Your task to perform on an android device: change your default location settings in chrome Image 0: 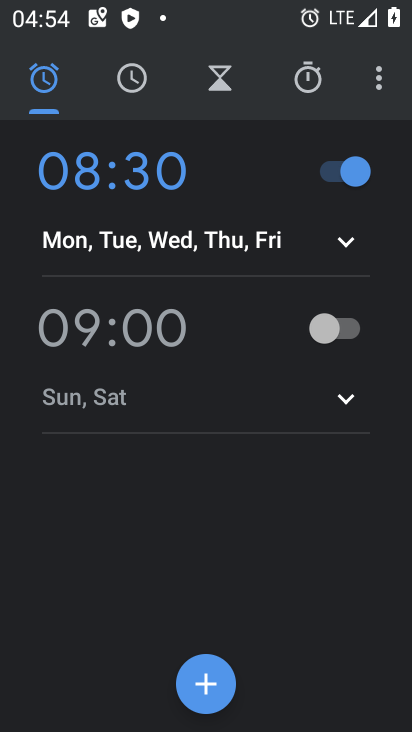
Step 0: press home button
Your task to perform on an android device: change your default location settings in chrome Image 1: 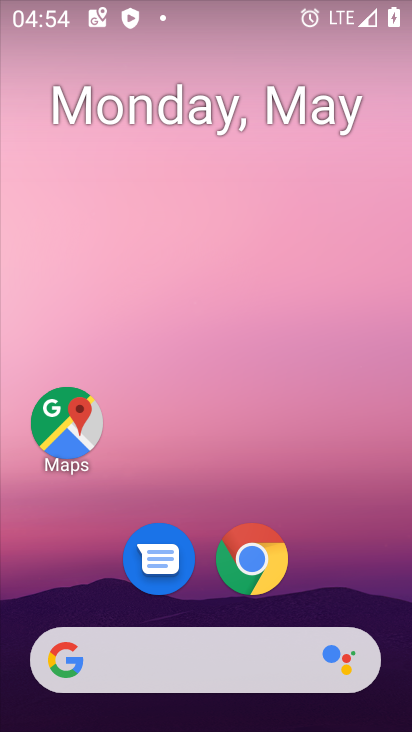
Step 1: drag from (218, 677) to (216, 29)
Your task to perform on an android device: change your default location settings in chrome Image 2: 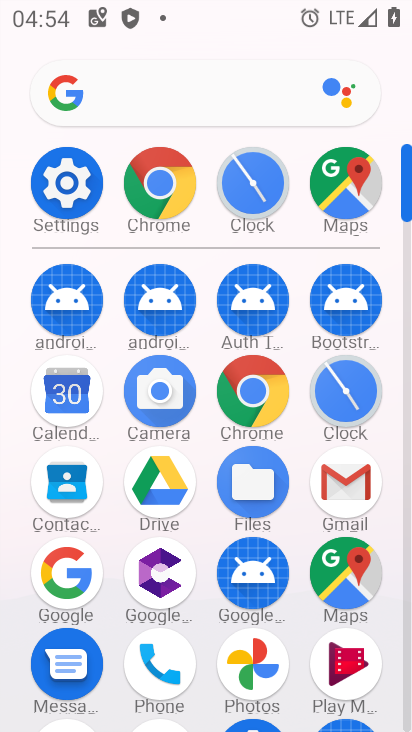
Step 2: click (279, 393)
Your task to perform on an android device: change your default location settings in chrome Image 3: 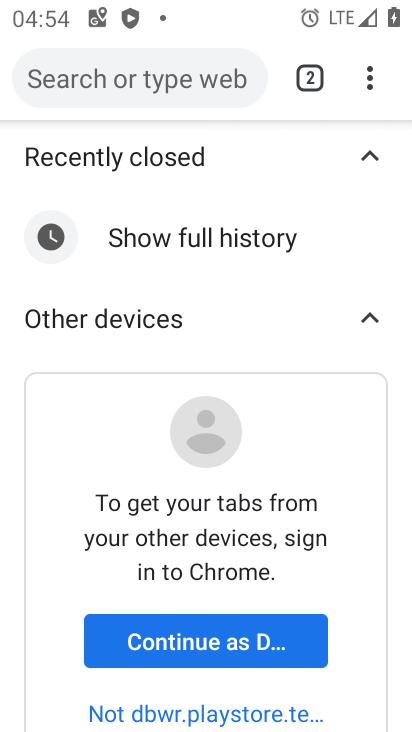
Step 3: click (369, 81)
Your task to perform on an android device: change your default location settings in chrome Image 4: 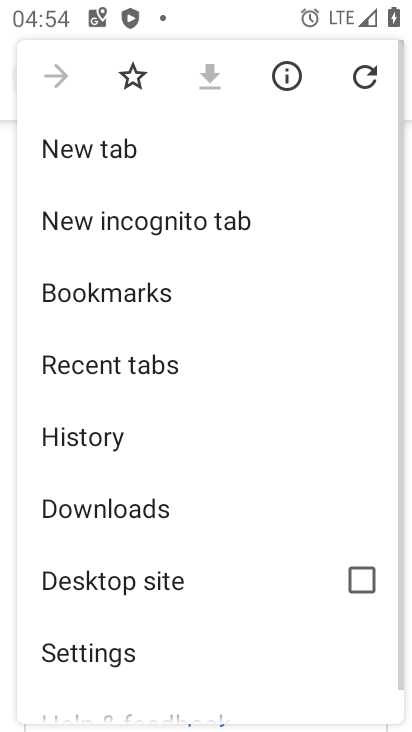
Step 4: click (135, 646)
Your task to perform on an android device: change your default location settings in chrome Image 5: 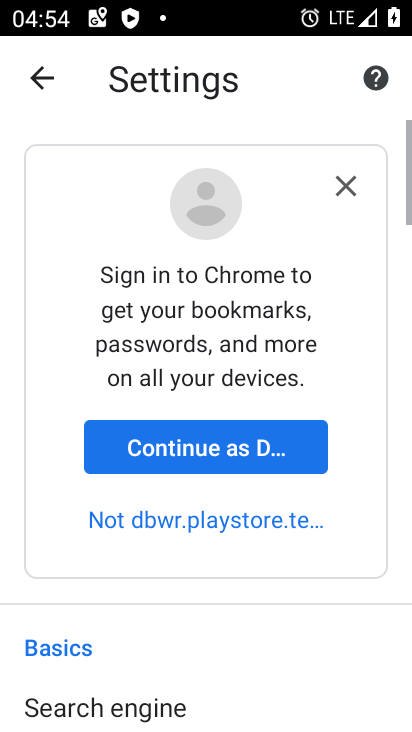
Step 5: drag from (217, 611) to (293, 102)
Your task to perform on an android device: change your default location settings in chrome Image 6: 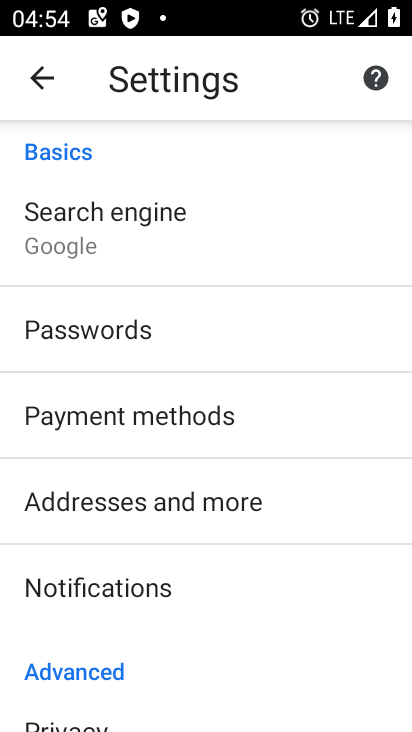
Step 6: drag from (181, 625) to (193, 337)
Your task to perform on an android device: change your default location settings in chrome Image 7: 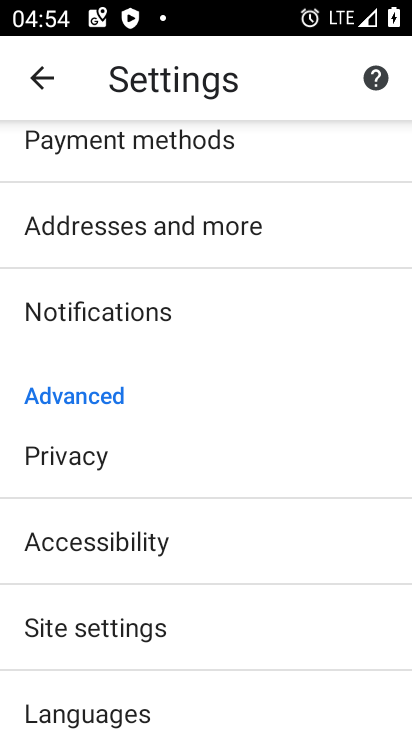
Step 7: drag from (158, 691) to (198, 471)
Your task to perform on an android device: change your default location settings in chrome Image 8: 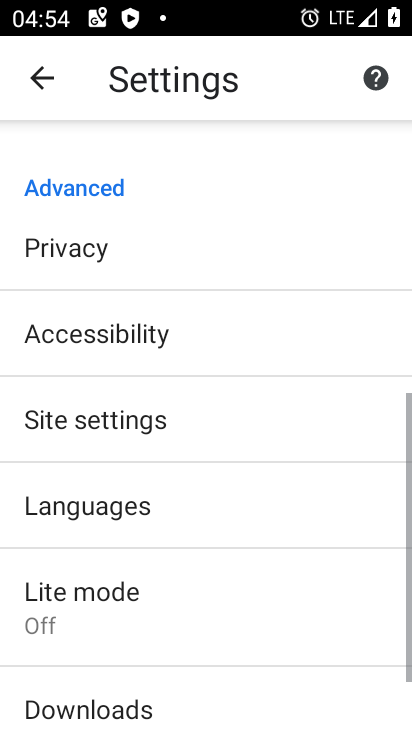
Step 8: click (179, 629)
Your task to perform on an android device: change your default location settings in chrome Image 9: 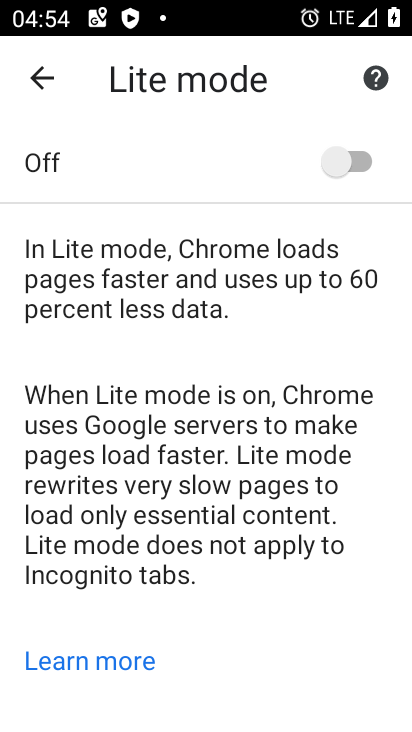
Step 9: press back button
Your task to perform on an android device: change your default location settings in chrome Image 10: 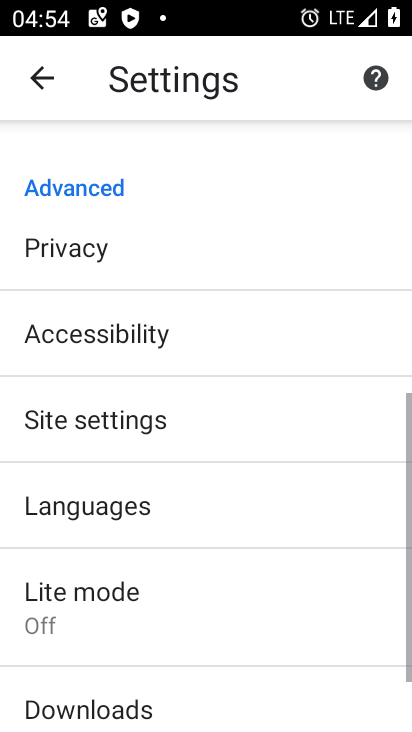
Step 10: click (177, 440)
Your task to perform on an android device: change your default location settings in chrome Image 11: 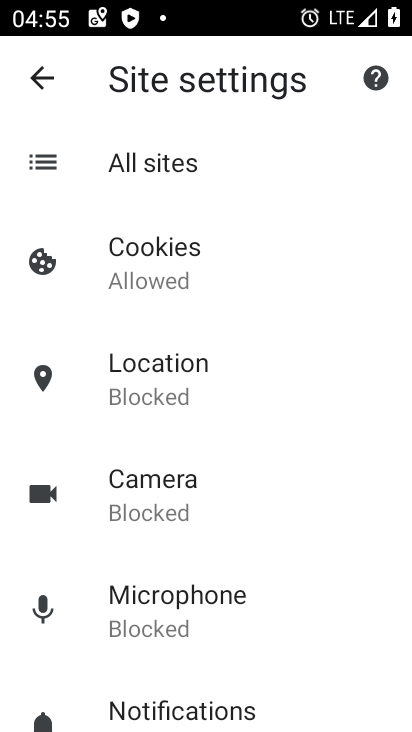
Step 11: click (170, 392)
Your task to perform on an android device: change your default location settings in chrome Image 12: 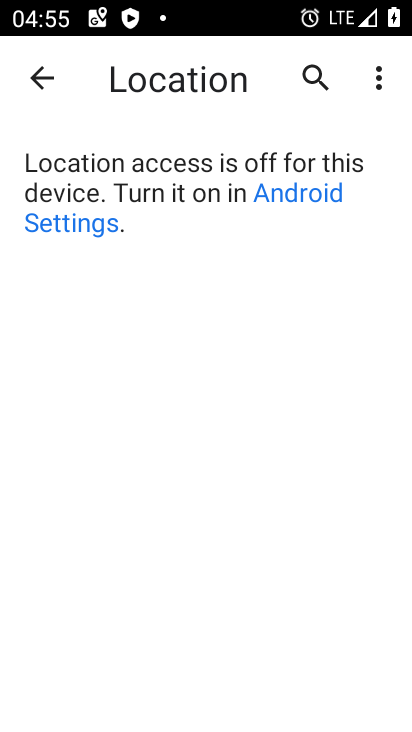
Step 12: task complete